Your task to perform on an android device: Go to calendar. Show me events next week Image 0: 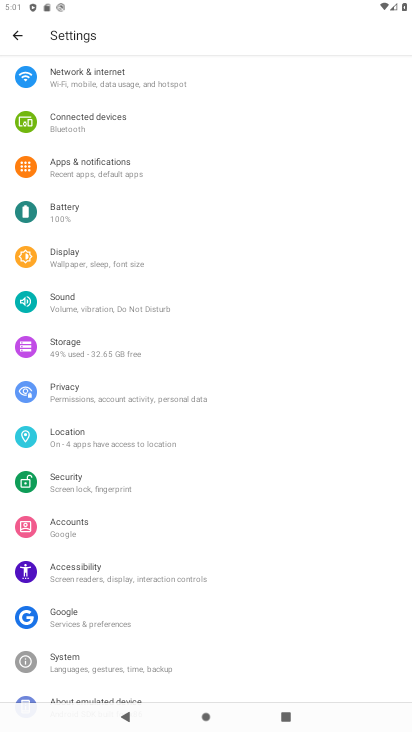
Step 0: press home button
Your task to perform on an android device: Go to calendar. Show me events next week Image 1: 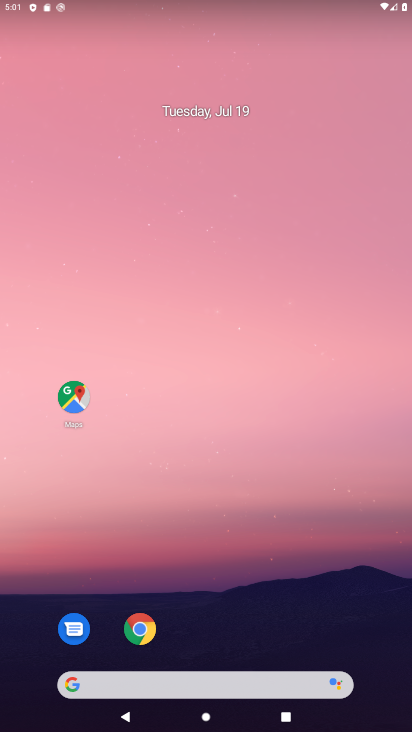
Step 1: drag from (224, 643) to (206, 67)
Your task to perform on an android device: Go to calendar. Show me events next week Image 2: 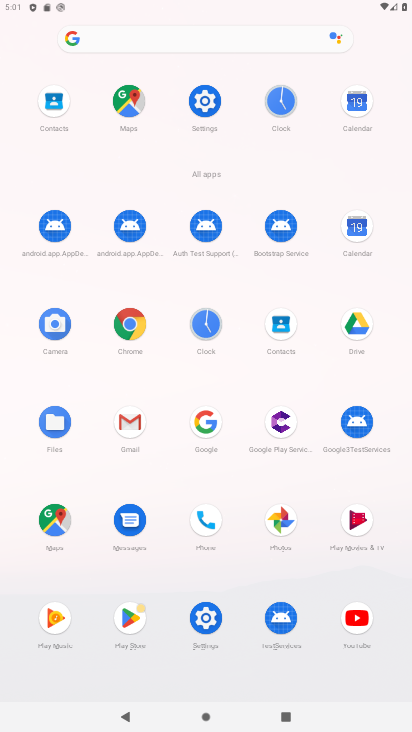
Step 2: click (362, 219)
Your task to perform on an android device: Go to calendar. Show me events next week Image 3: 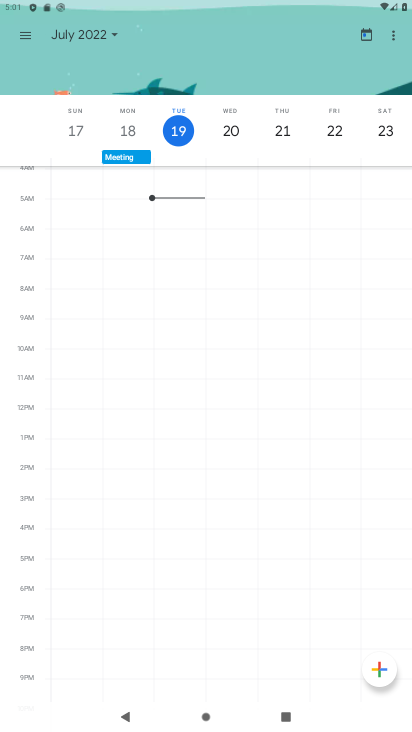
Step 3: click (20, 35)
Your task to perform on an android device: Go to calendar. Show me events next week Image 4: 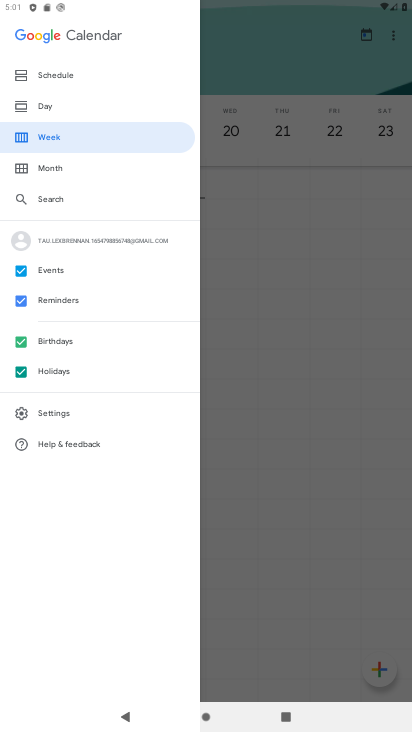
Step 4: click (71, 146)
Your task to perform on an android device: Go to calendar. Show me events next week Image 5: 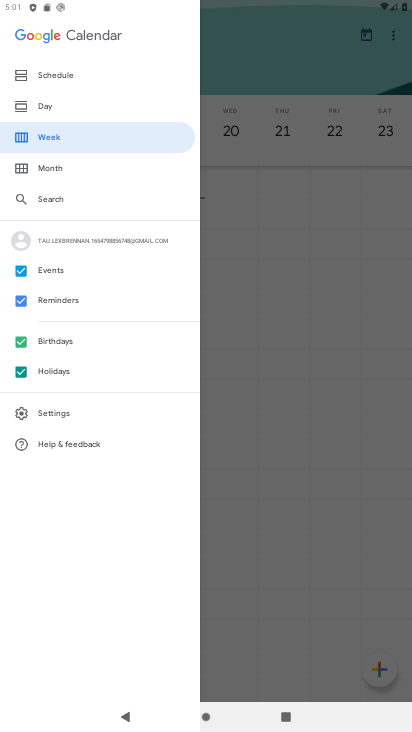
Step 5: click (322, 205)
Your task to perform on an android device: Go to calendar. Show me events next week Image 6: 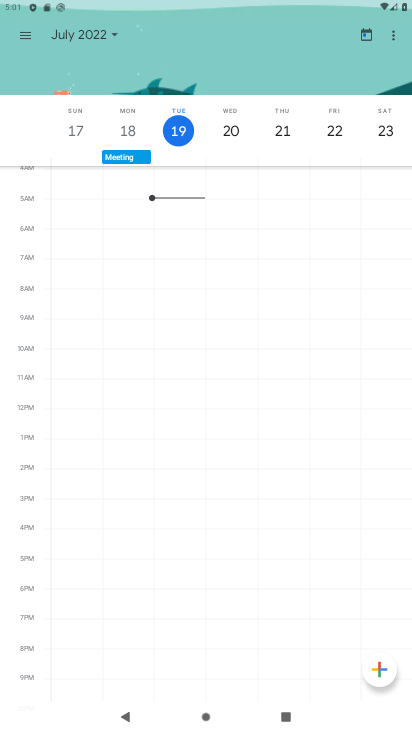
Step 6: task complete